Your task to perform on an android device: turn on wifi Image 0: 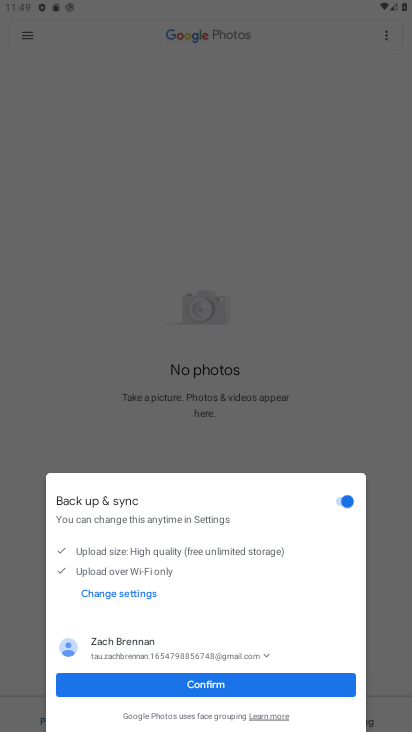
Step 0: press home button
Your task to perform on an android device: turn on wifi Image 1: 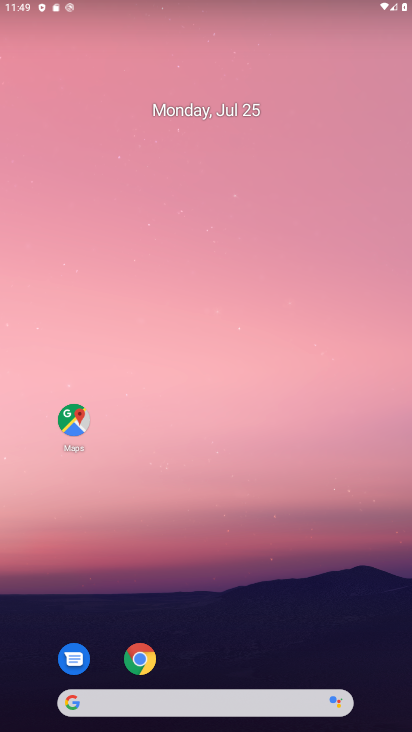
Step 1: drag from (221, 590) to (250, 1)
Your task to perform on an android device: turn on wifi Image 2: 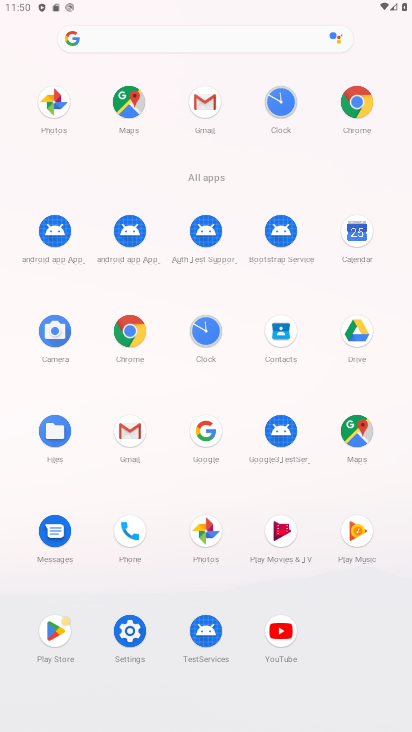
Step 2: click (120, 636)
Your task to perform on an android device: turn on wifi Image 3: 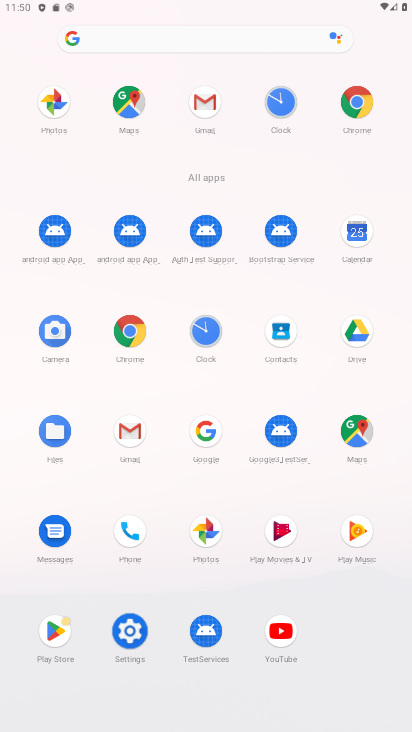
Step 3: click (120, 636)
Your task to perform on an android device: turn on wifi Image 4: 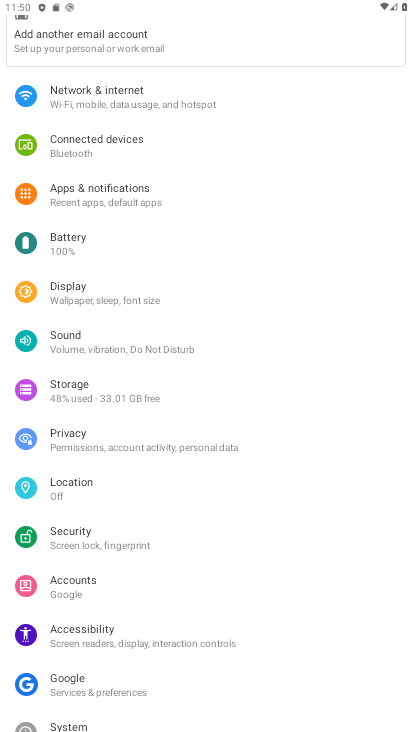
Step 4: drag from (160, 194) to (239, 717)
Your task to perform on an android device: turn on wifi Image 5: 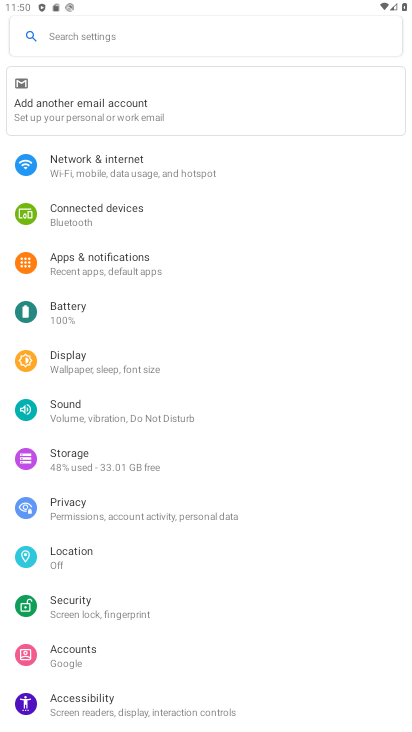
Step 5: click (93, 179)
Your task to perform on an android device: turn on wifi Image 6: 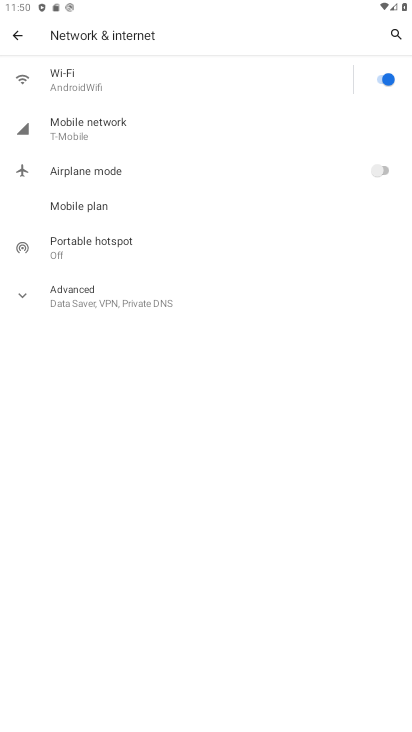
Step 6: click (218, 70)
Your task to perform on an android device: turn on wifi Image 7: 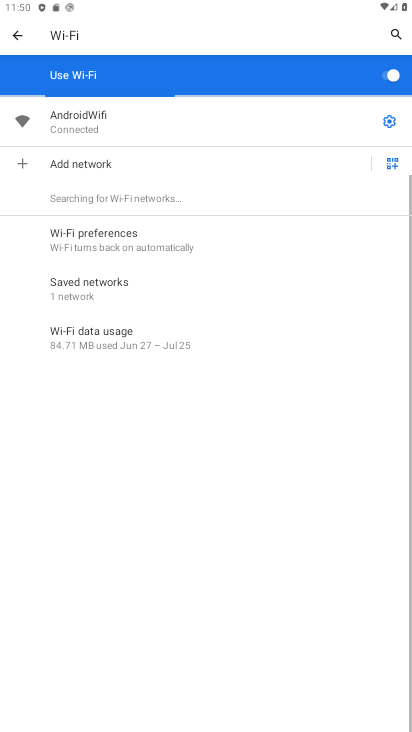
Step 7: task complete